Your task to perform on an android device: Open Youtube and go to the subscriptions tab Image 0: 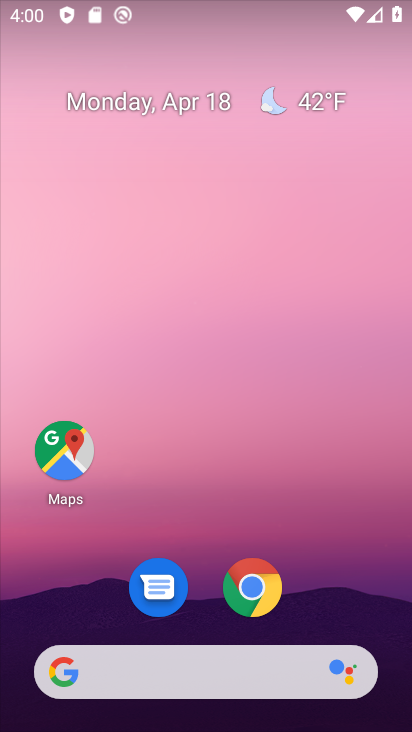
Step 0: drag from (210, 538) to (211, 51)
Your task to perform on an android device: Open Youtube and go to the subscriptions tab Image 1: 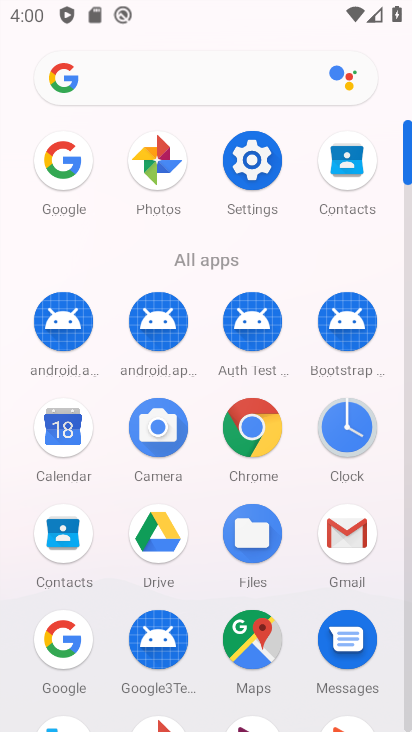
Step 1: drag from (291, 496) to (271, 175)
Your task to perform on an android device: Open Youtube and go to the subscriptions tab Image 2: 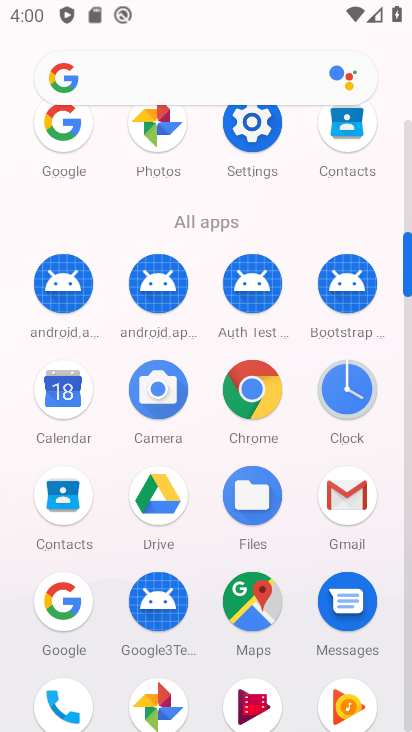
Step 2: drag from (295, 691) to (290, 416)
Your task to perform on an android device: Open Youtube and go to the subscriptions tab Image 3: 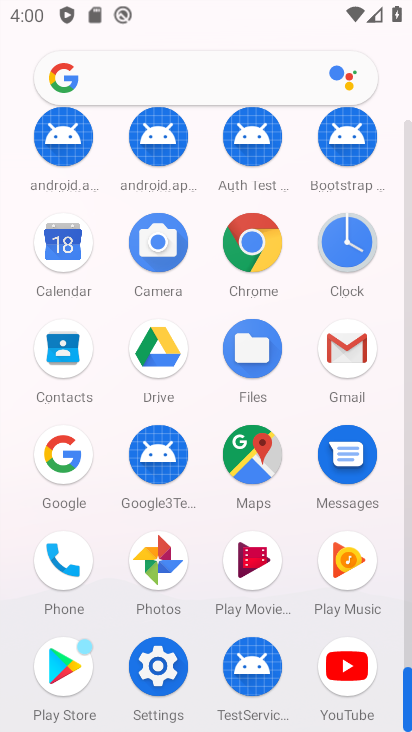
Step 3: click (344, 670)
Your task to perform on an android device: Open Youtube and go to the subscriptions tab Image 4: 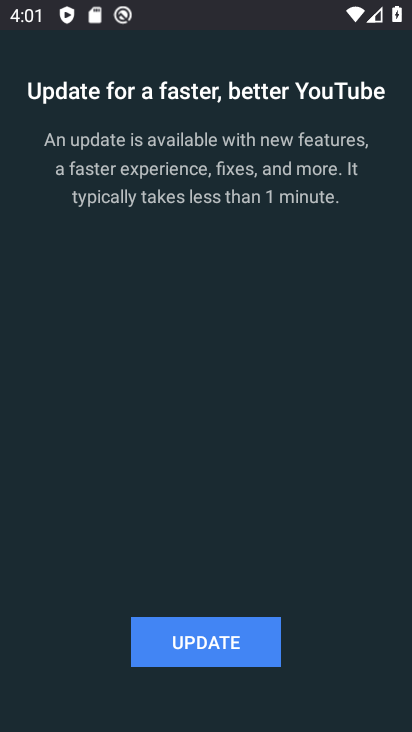
Step 4: click (236, 638)
Your task to perform on an android device: Open Youtube and go to the subscriptions tab Image 5: 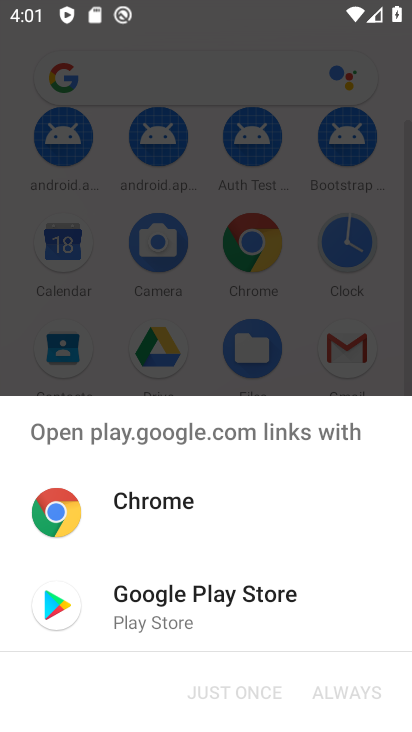
Step 5: click (181, 582)
Your task to perform on an android device: Open Youtube and go to the subscriptions tab Image 6: 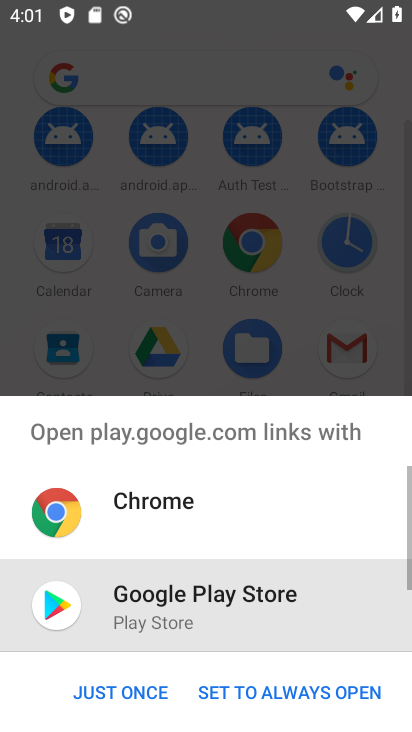
Step 6: click (141, 688)
Your task to perform on an android device: Open Youtube and go to the subscriptions tab Image 7: 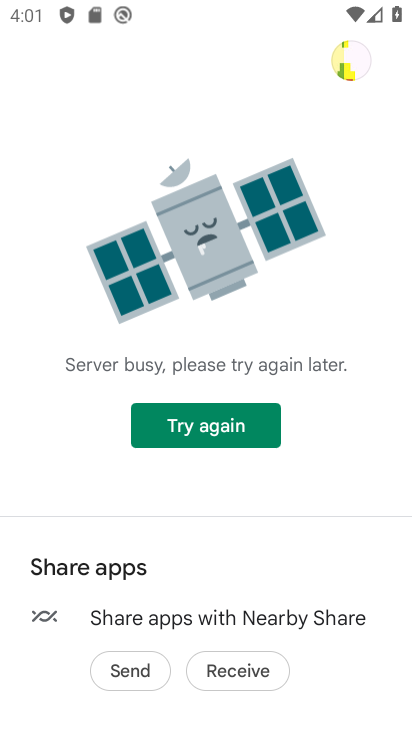
Step 7: click (229, 437)
Your task to perform on an android device: Open Youtube and go to the subscriptions tab Image 8: 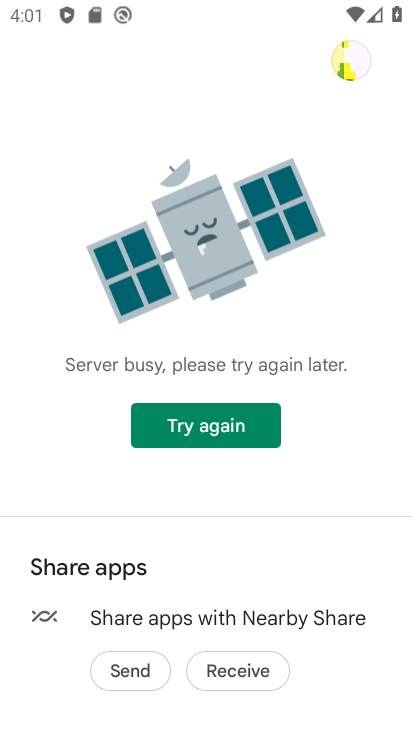
Step 8: task complete